Your task to perform on an android device: turn off location Image 0: 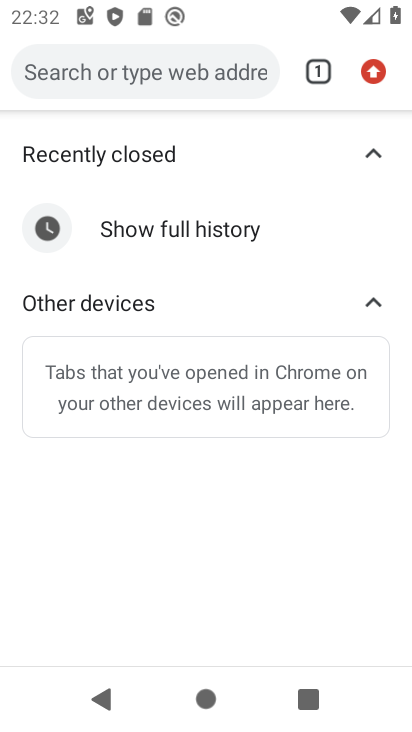
Step 0: press home button
Your task to perform on an android device: turn off location Image 1: 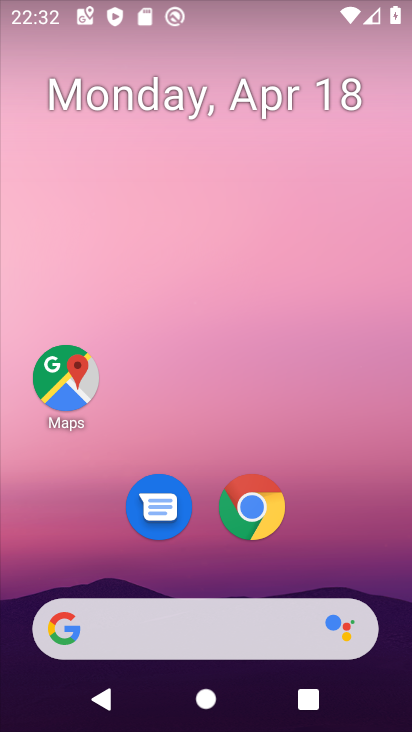
Step 1: drag from (313, 500) to (331, 44)
Your task to perform on an android device: turn off location Image 2: 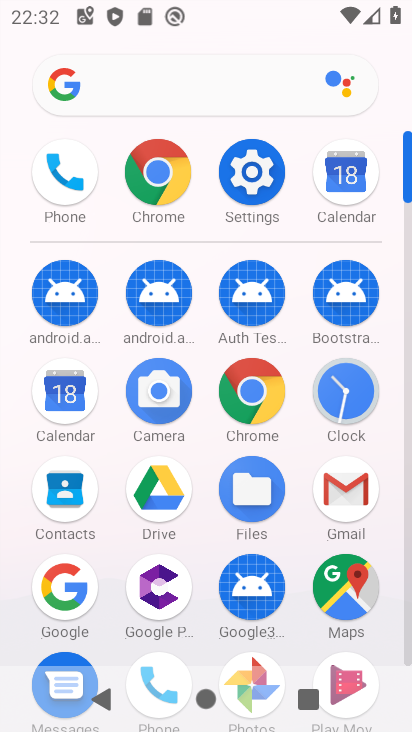
Step 2: click (253, 196)
Your task to perform on an android device: turn off location Image 3: 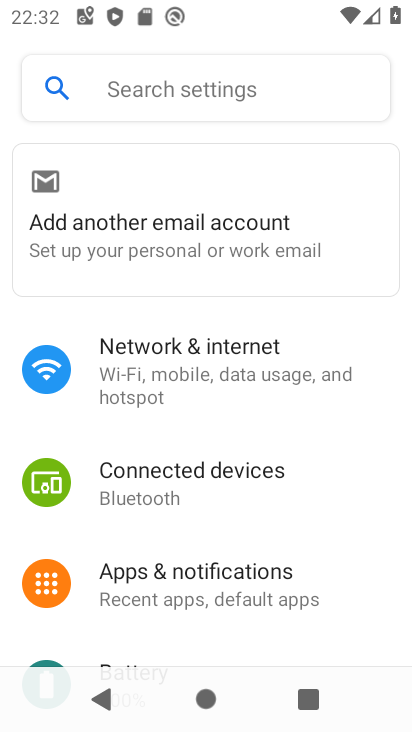
Step 3: drag from (224, 533) to (228, 147)
Your task to perform on an android device: turn off location Image 4: 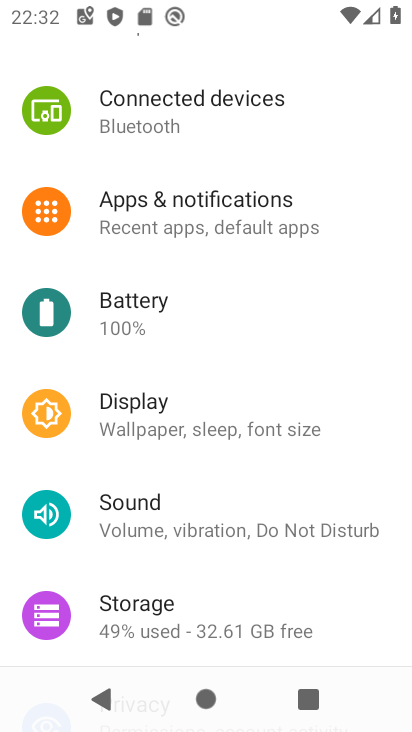
Step 4: drag from (254, 585) to (251, 186)
Your task to perform on an android device: turn off location Image 5: 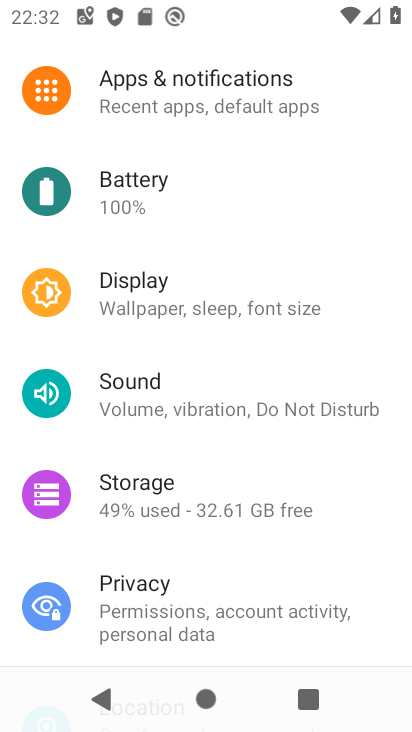
Step 5: drag from (184, 563) to (228, 190)
Your task to perform on an android device: turn off location Image 6: 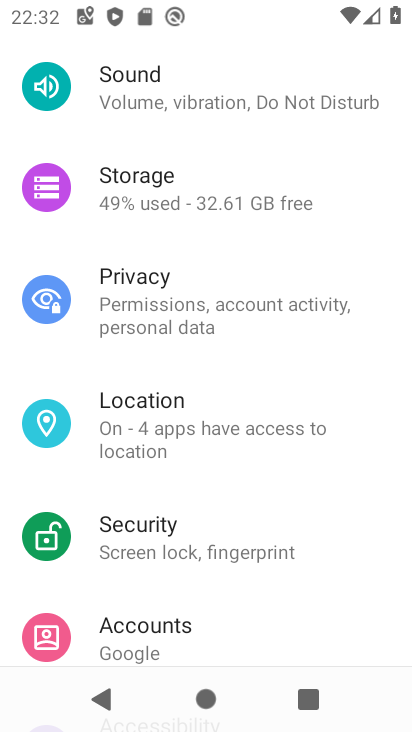
Step 6: click (218, 422)
Your task to perform on an android device: turn off location Image 7: 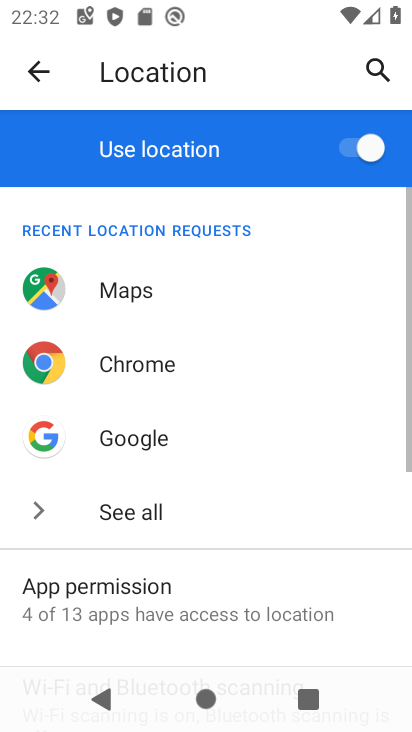
Step 7: click (347, 138)
Your task to perform on an android device: turn off location Image 8: 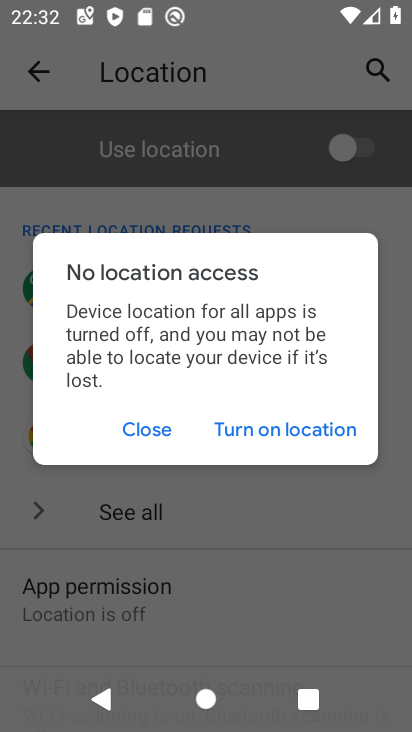
Step 8: click (153, 428)
Your task to perform on an android device: turn off location Image 9: 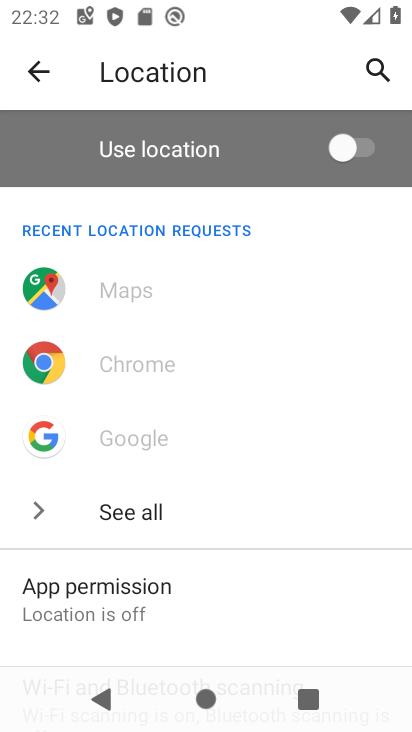
Step 9: task complete